Your task to perform on an android device: Open the map Image 0: 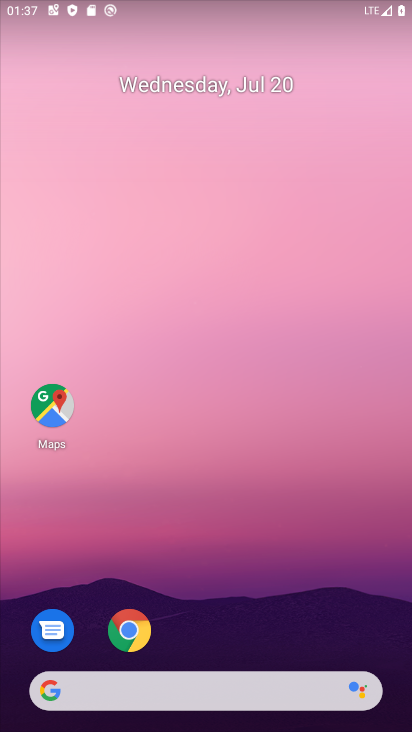
Step 0: drag from (258, 564) to (315, 45)
Your task to perform on an android device: Open the map Image 1: 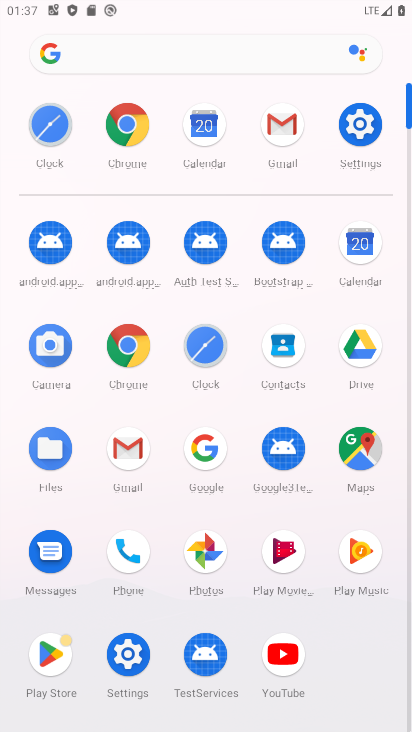
Step 1: click (377, 459)
Your task to perform on an android device: Open the map Image 2: 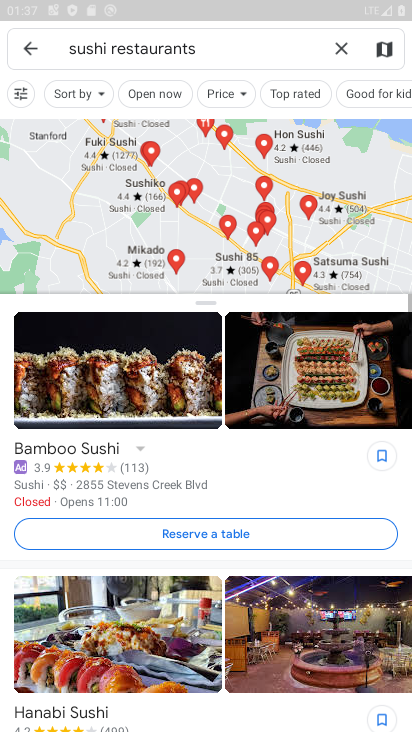
Step 2: click (363, 461)
Your task to perform on an android device: Open the map Image 3: 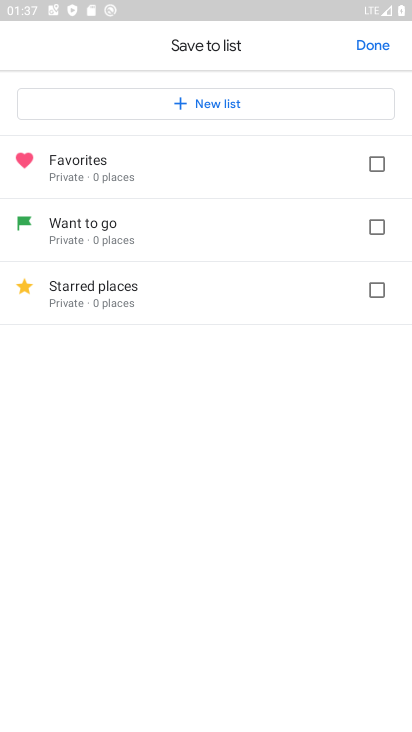
Step 3: task complete